Your task to perform on an android device: Go to display settings Image 0: 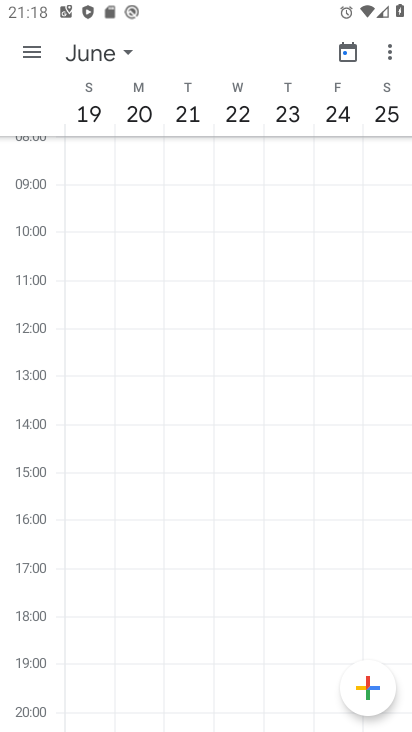
Step 0: press home button
Your task to perform on an android device: Go to display settings Image 1: 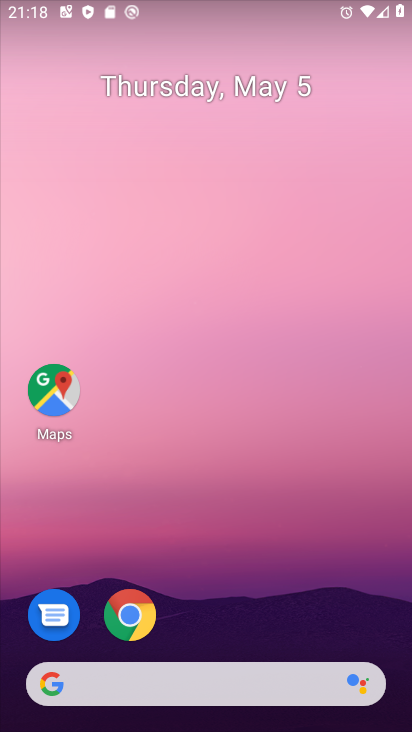
Step 1: drag from (233, 618) to (313, 127)
Your task to perform on an android device: Go to display settings Image 2: 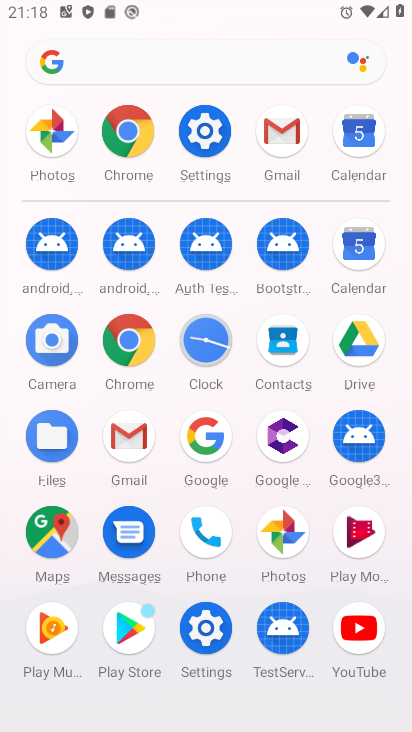
Step 2: click (207, 639)
Your task to perform on an android device: Go to display settings Image 3: 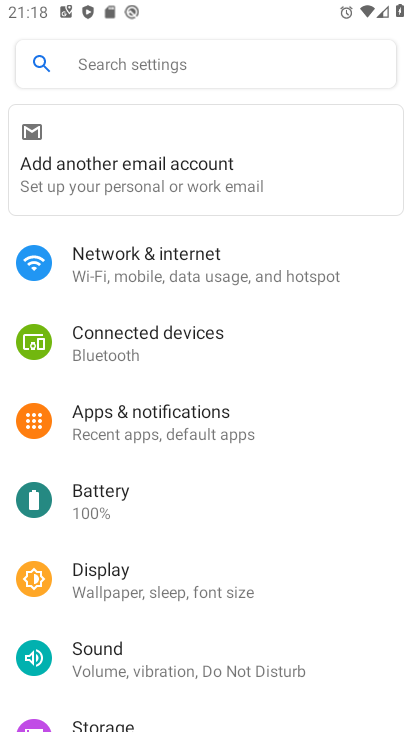
Step 3: click (140, 597)
Your task to perform on an android device: Go to display settings Image 4: 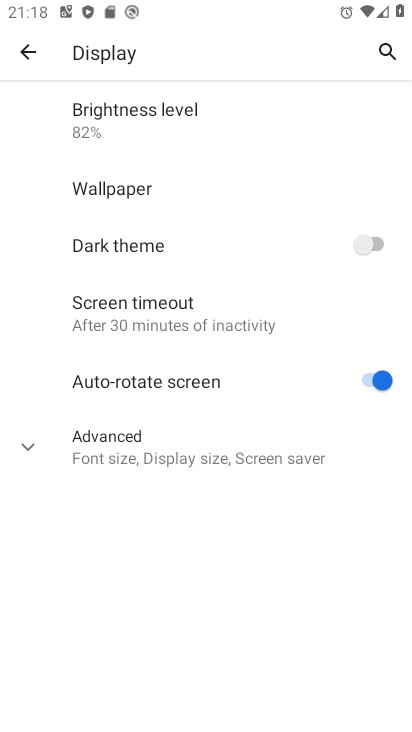
Step 4: task complete